Your task to perform on an android device: change your default location settings in chrome Image 0: 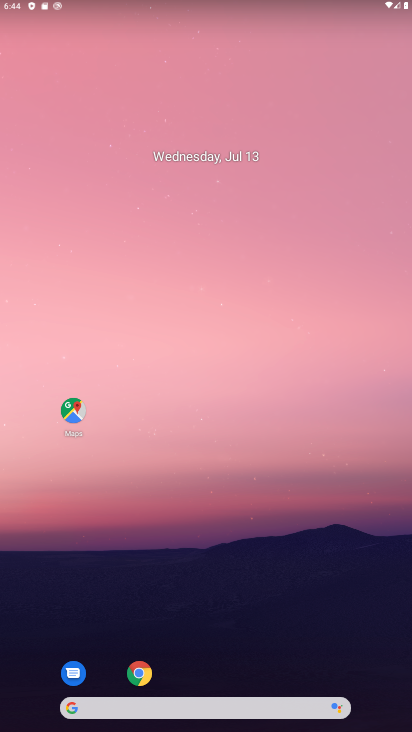
Step 0: drag from (231, 677) to (304, 153)
Your task to perform on an android device: change your default location settings in chrome Image 1: 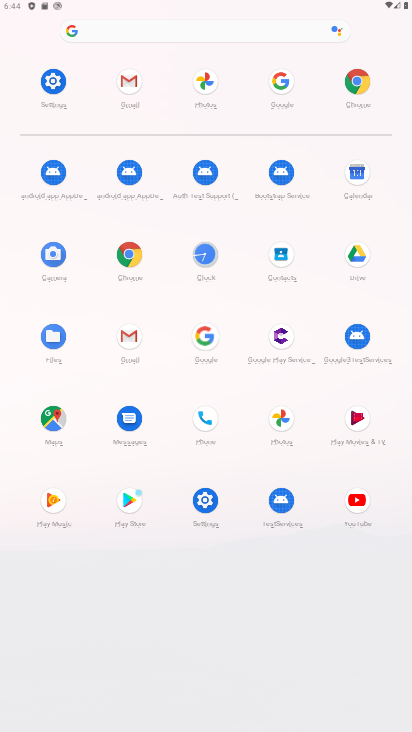
Step 1: click (356, 94)
Your task to perform on an android device: change your default location settings in chrome Image 2: 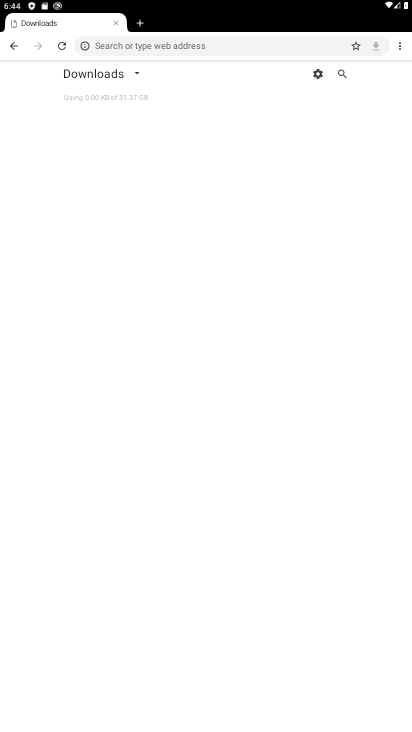
Step 2: drag from (396, 50) to (328, 209)
Your task to perform on an android device: change your default location settings in chrome Image 3: 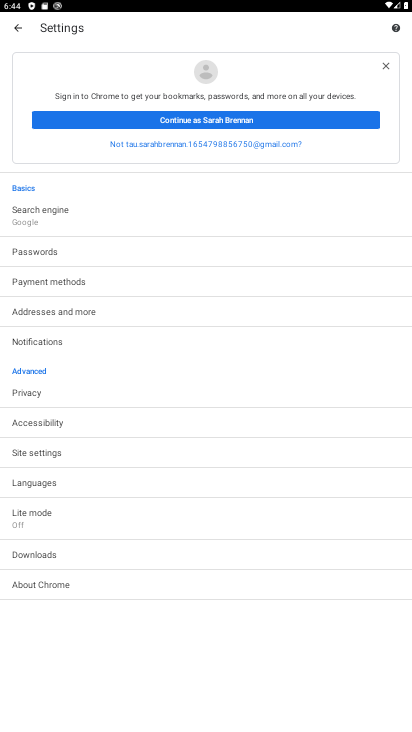
Step 3: click (57, 454)
Your task to perform on an android device: change your default location settings in chrome Image 4: 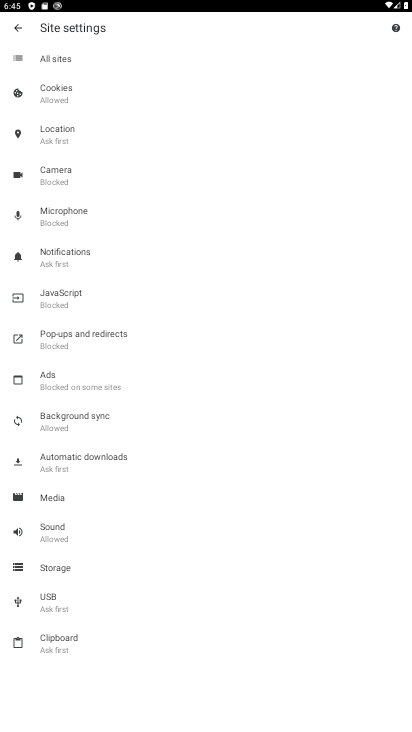
Step 4: click (55, 134)
Your task to perform on an android device: change your default location settings in chrome Image 5: 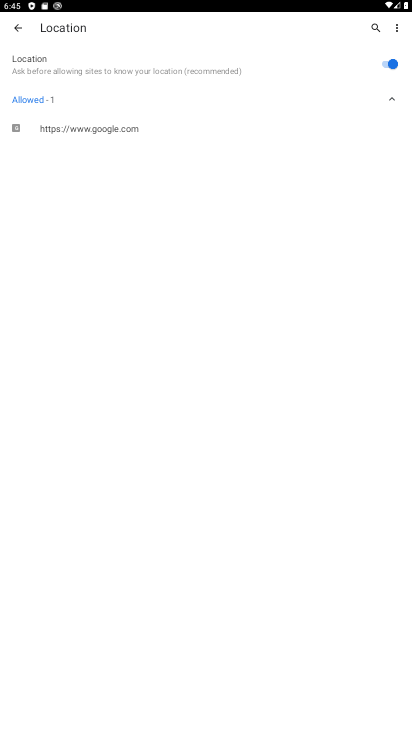
Step 5: task complete